Your task to perform on an android device: clear history in the chrome app Image 0: 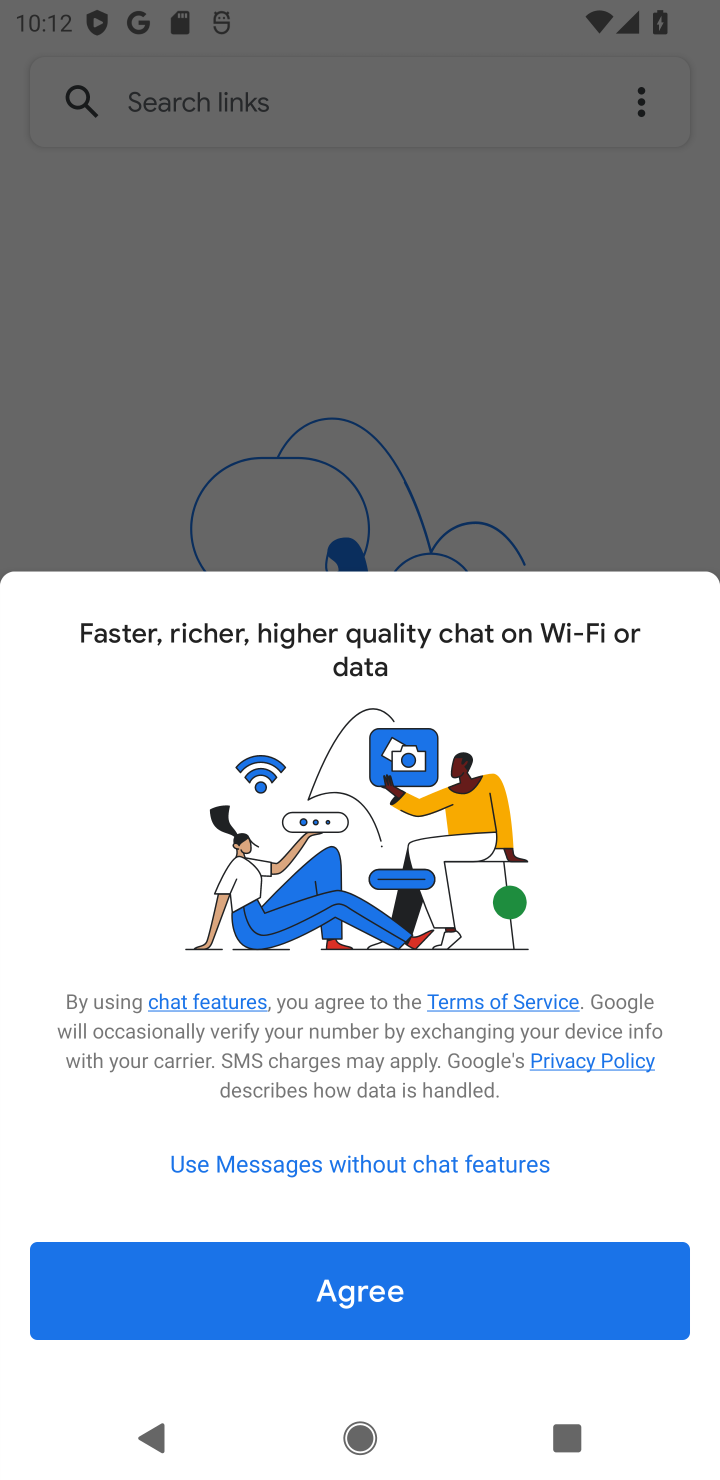
Step 0: press home button
Your task to perform on an android device: clear history in the chrome app Image 1: 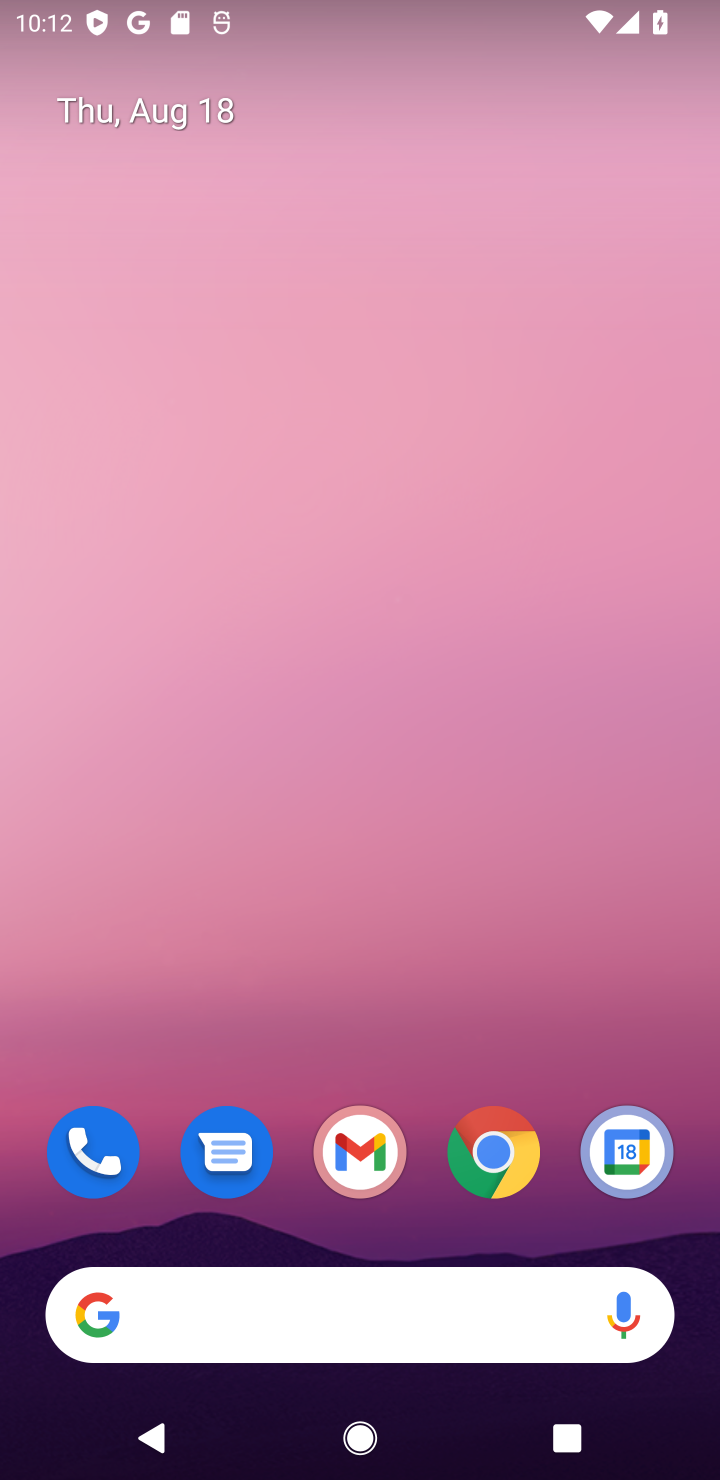
Step 1: click (497, 1145)
Your task to perform on an android device: clear history in the chrome app Image 2: 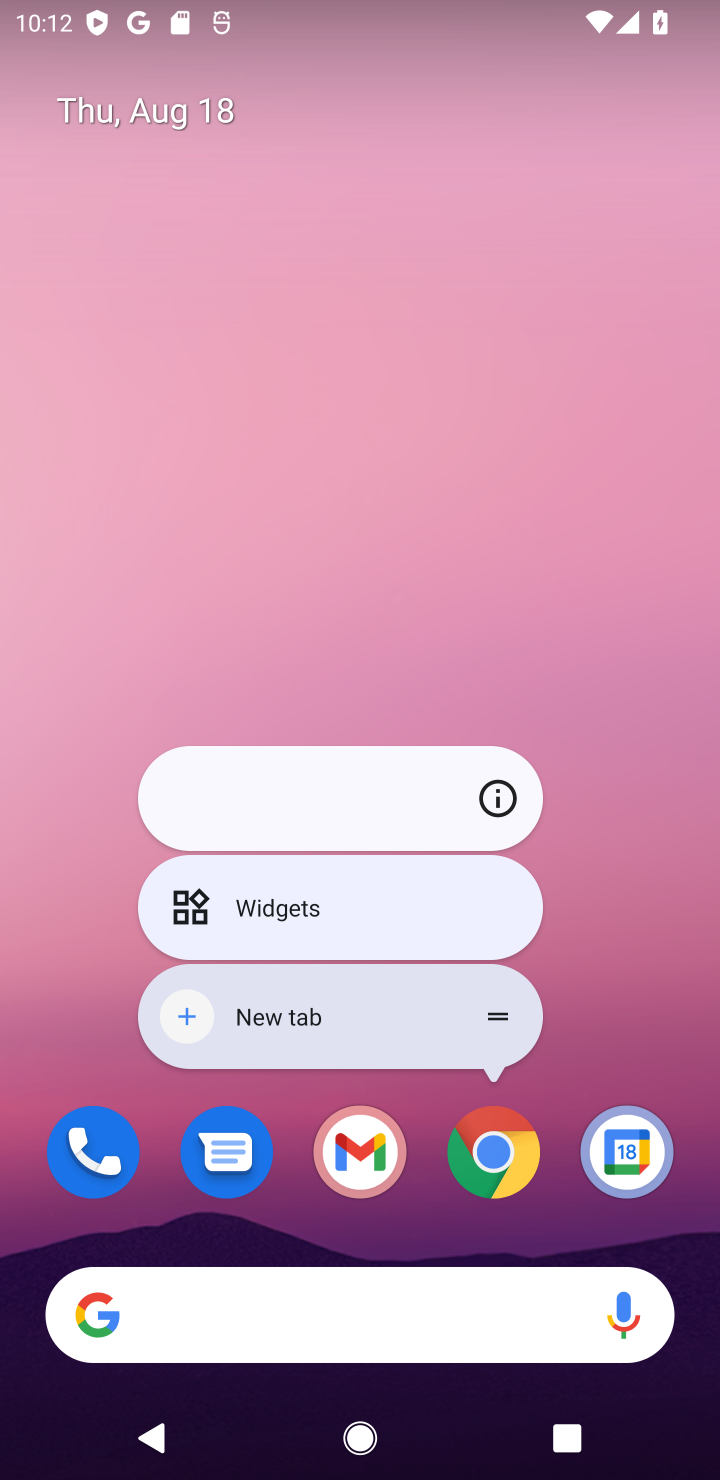
Step 2: click (497, 1145)
Your task to perform on an android device: clear history in the chrome app Image 3: 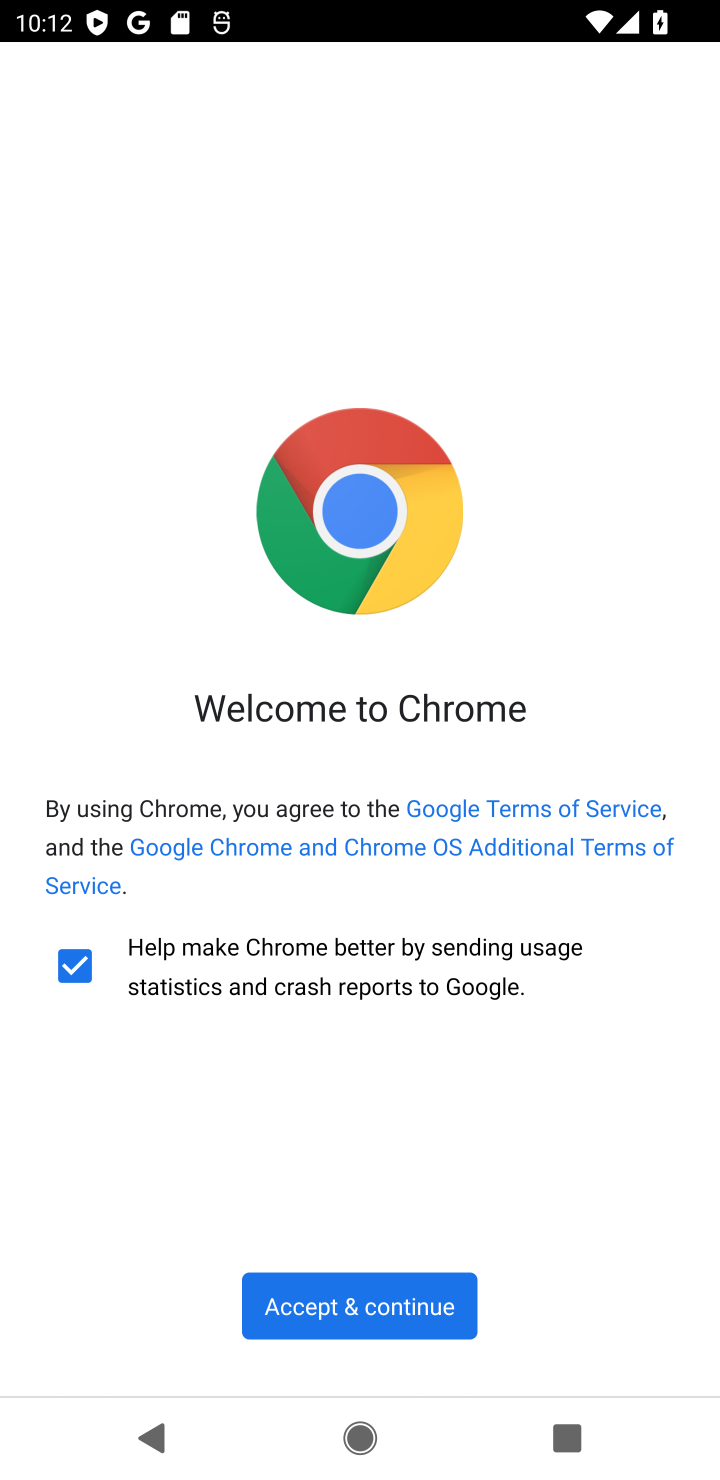
Step 3: click (432, 1299)
Your task to perform on an android device: clear history in the chrome app Image 4: 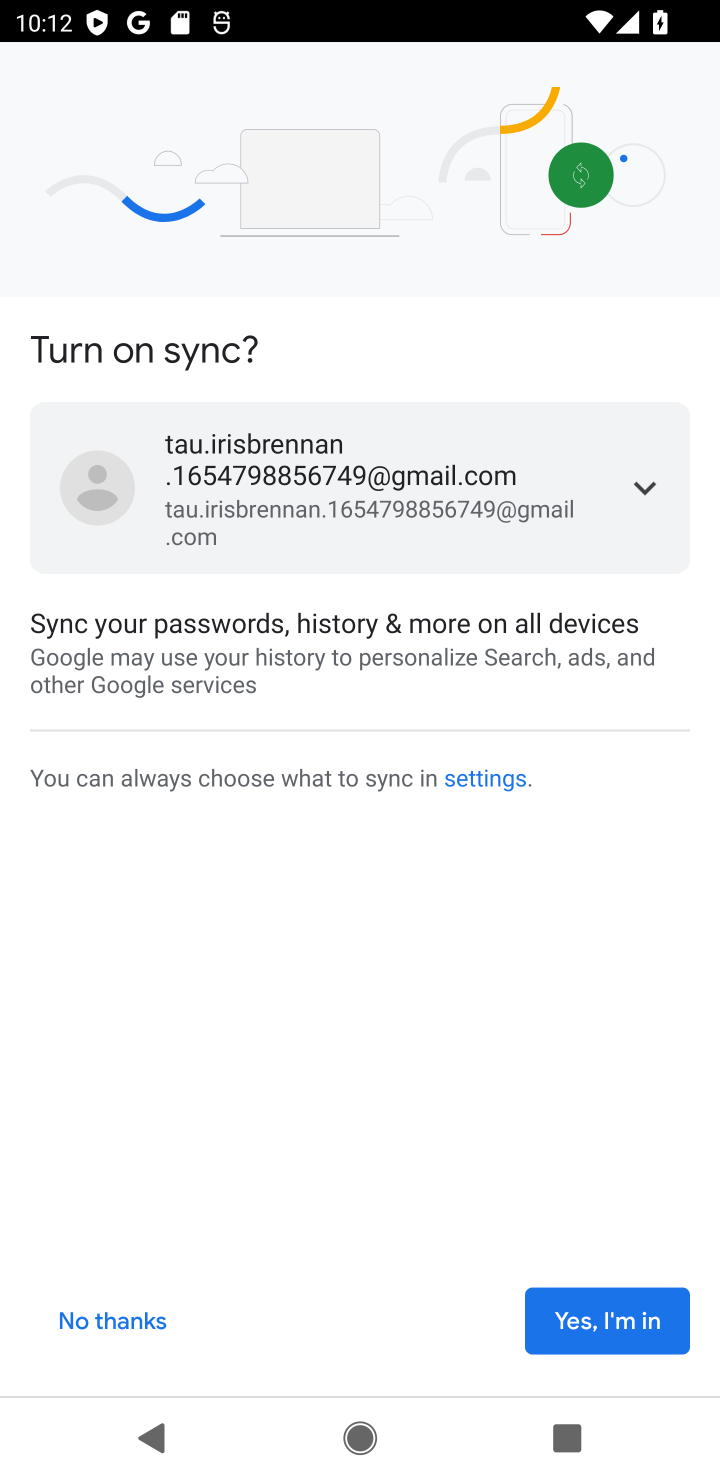
Step 4: click (586, 1314)
Your task to perform on an android device: clear history in the chrome app Image 5: 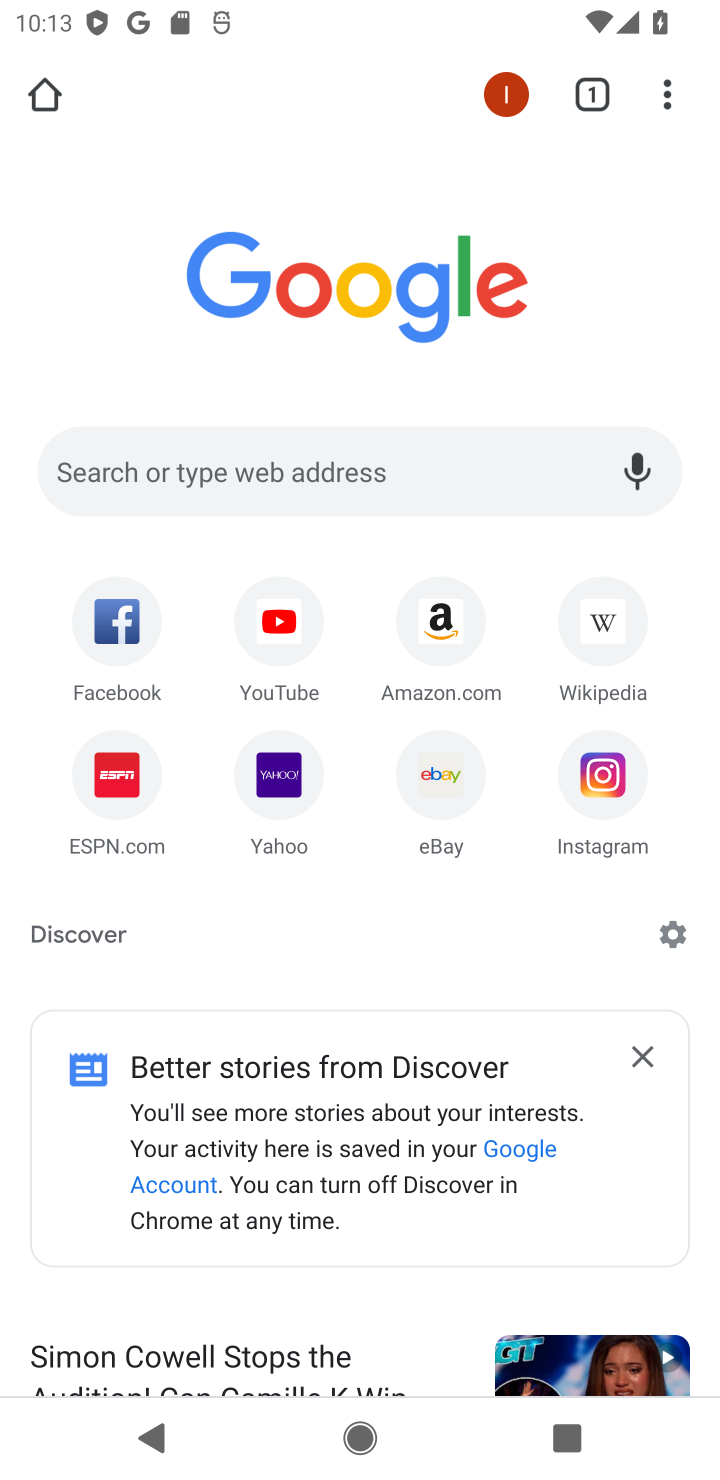
Step 5: click (671, 95)
Your task to perform on an android device: clear history in the chrome app Image 6: 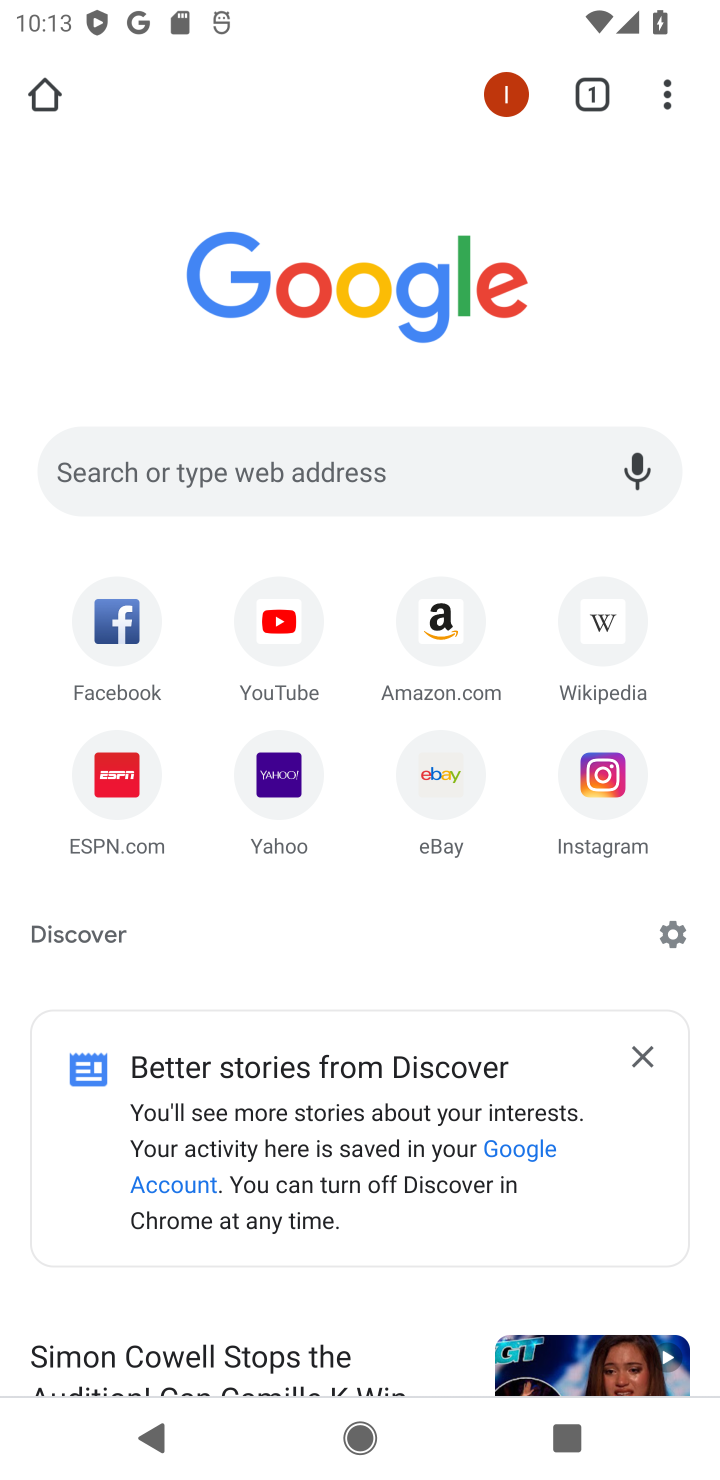
Step 6: click (671, 97)
Your task to perform on an android device: clear history in the chrome app Image 7: 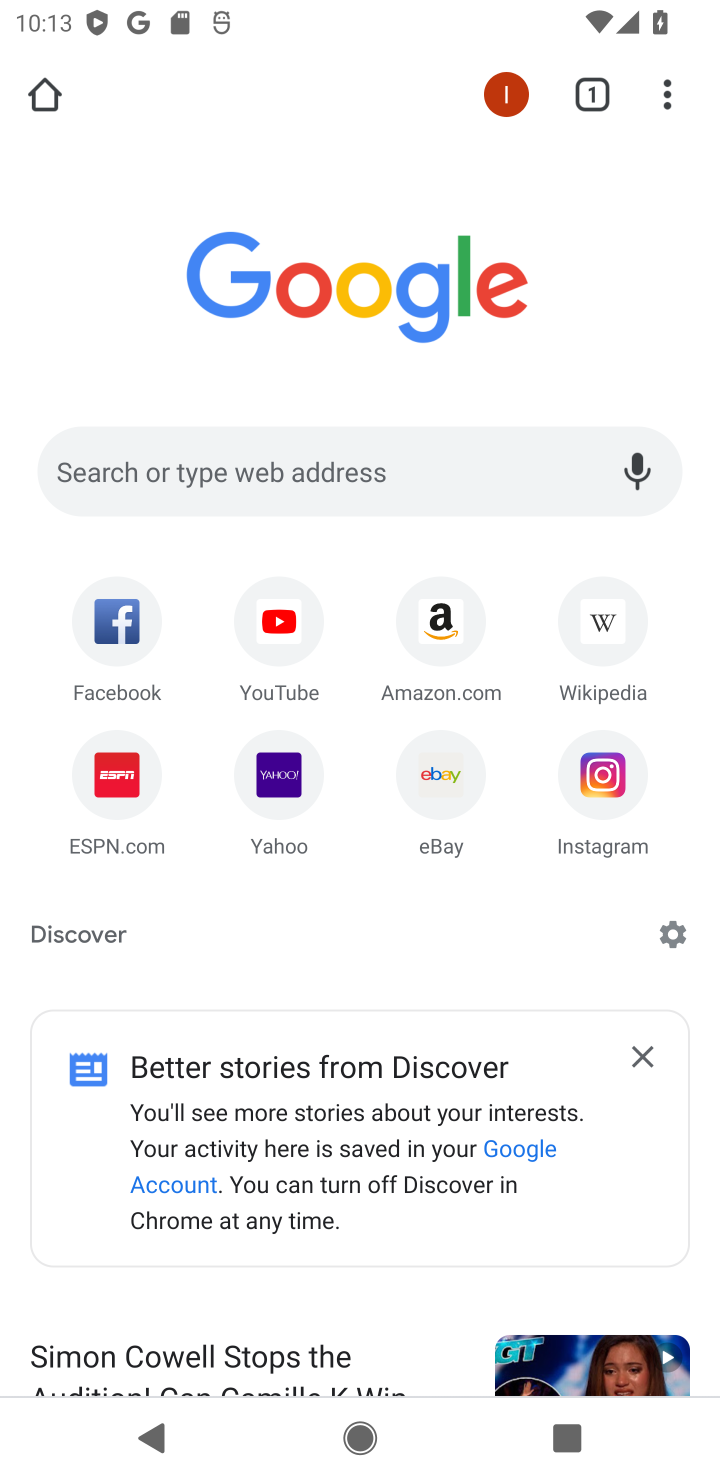
Step 7: click (668, 97)
Your task to perform on an android device: clear history in the chrome app Image 8: 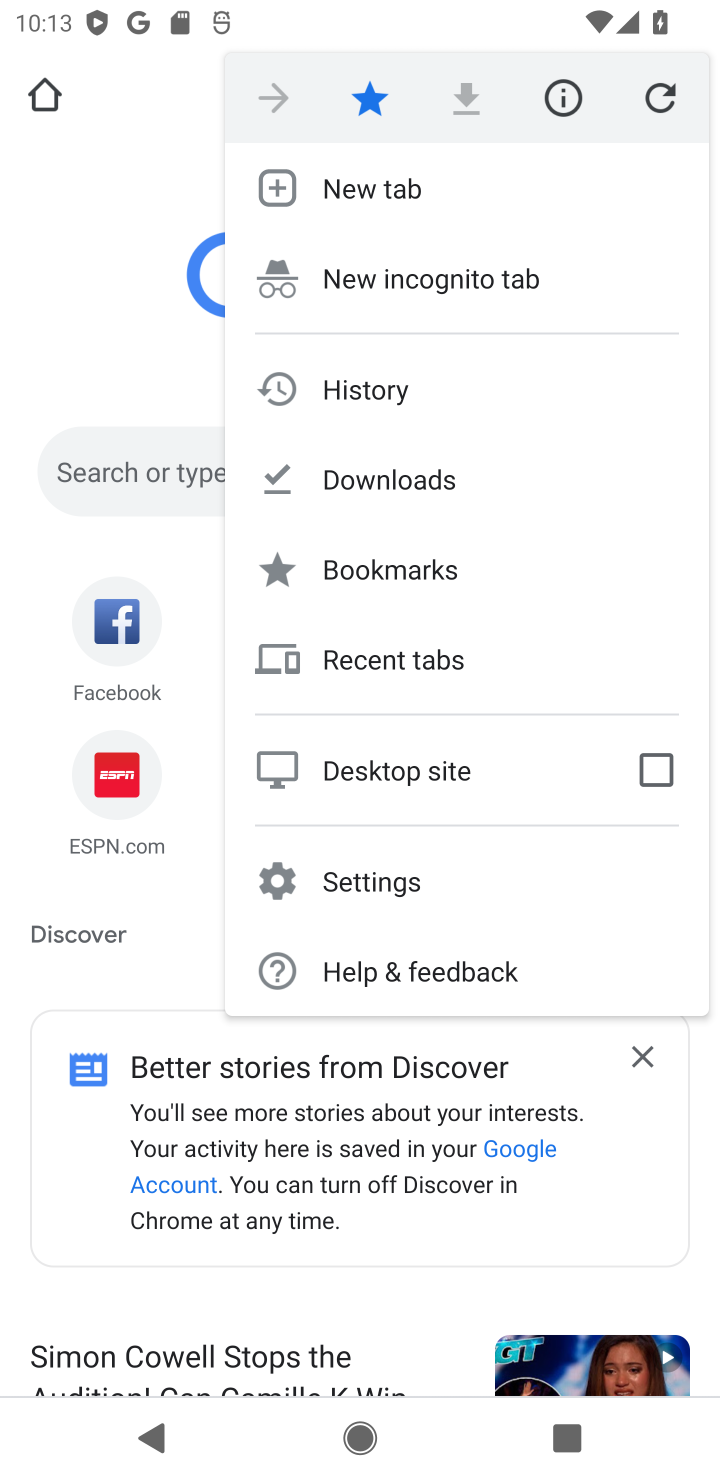
Step 8: click (377, 394)
Your task to perform on an android device: clear history in the chrome app Image 9: 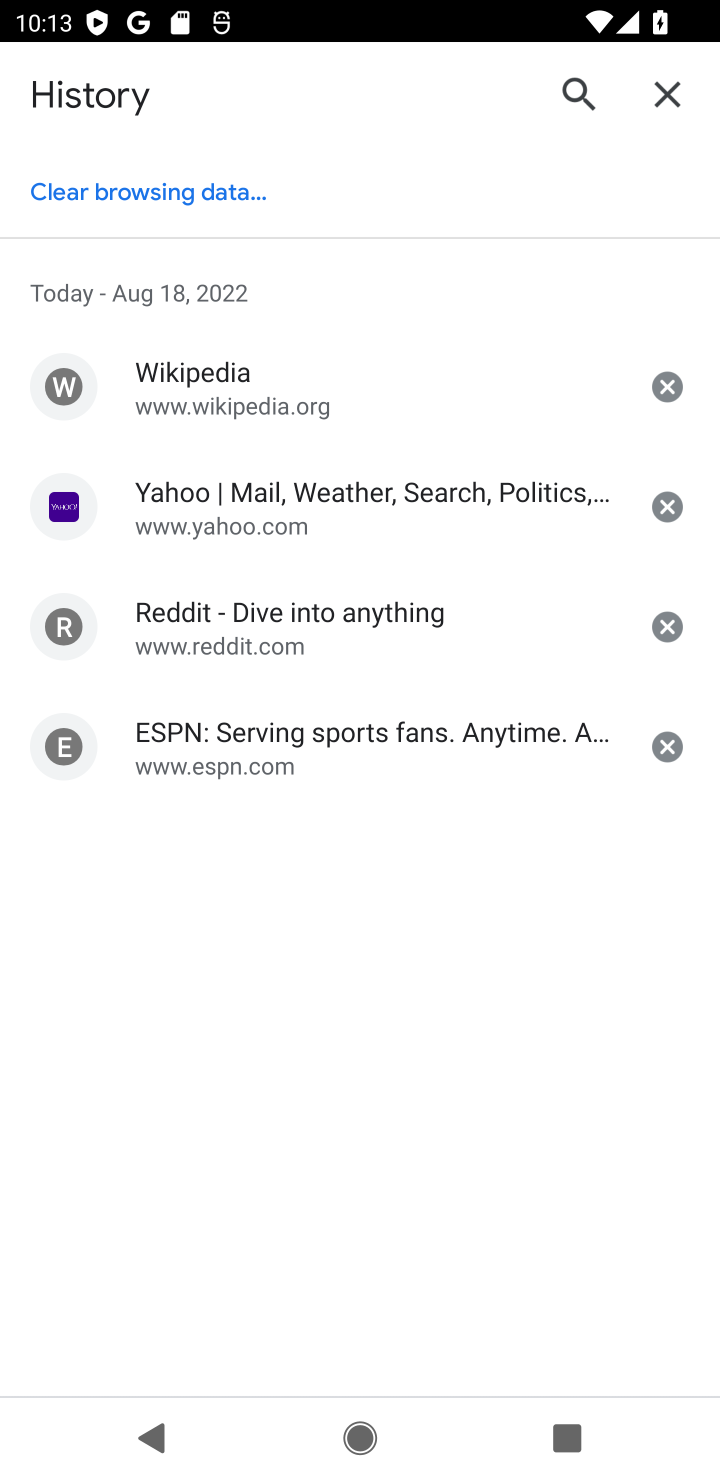
Step 9: click (207, 189)
Your task to perform on an android device: clear history in the chrome app Image 10: 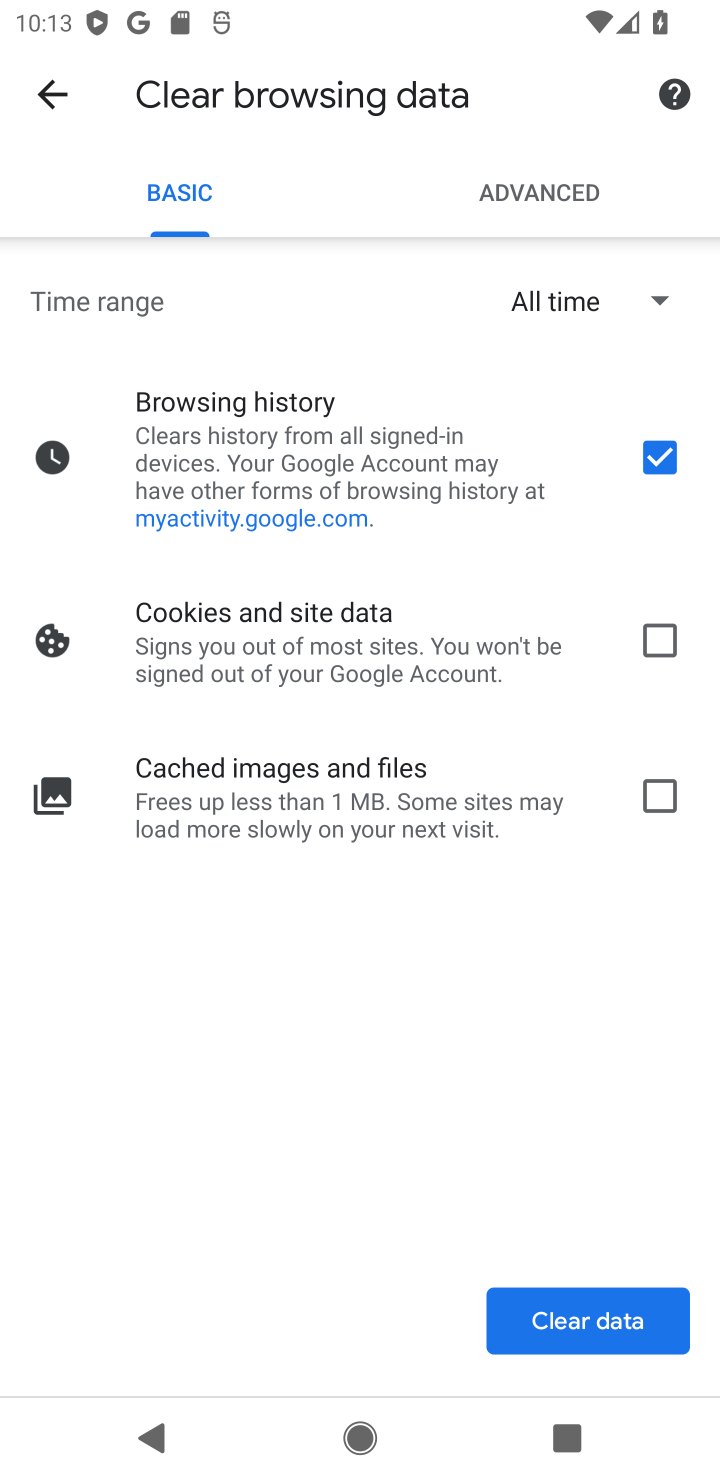
Step 10: click (629, 1322)
Your task to perform on an android device: clear history in the chrome app Image 11: 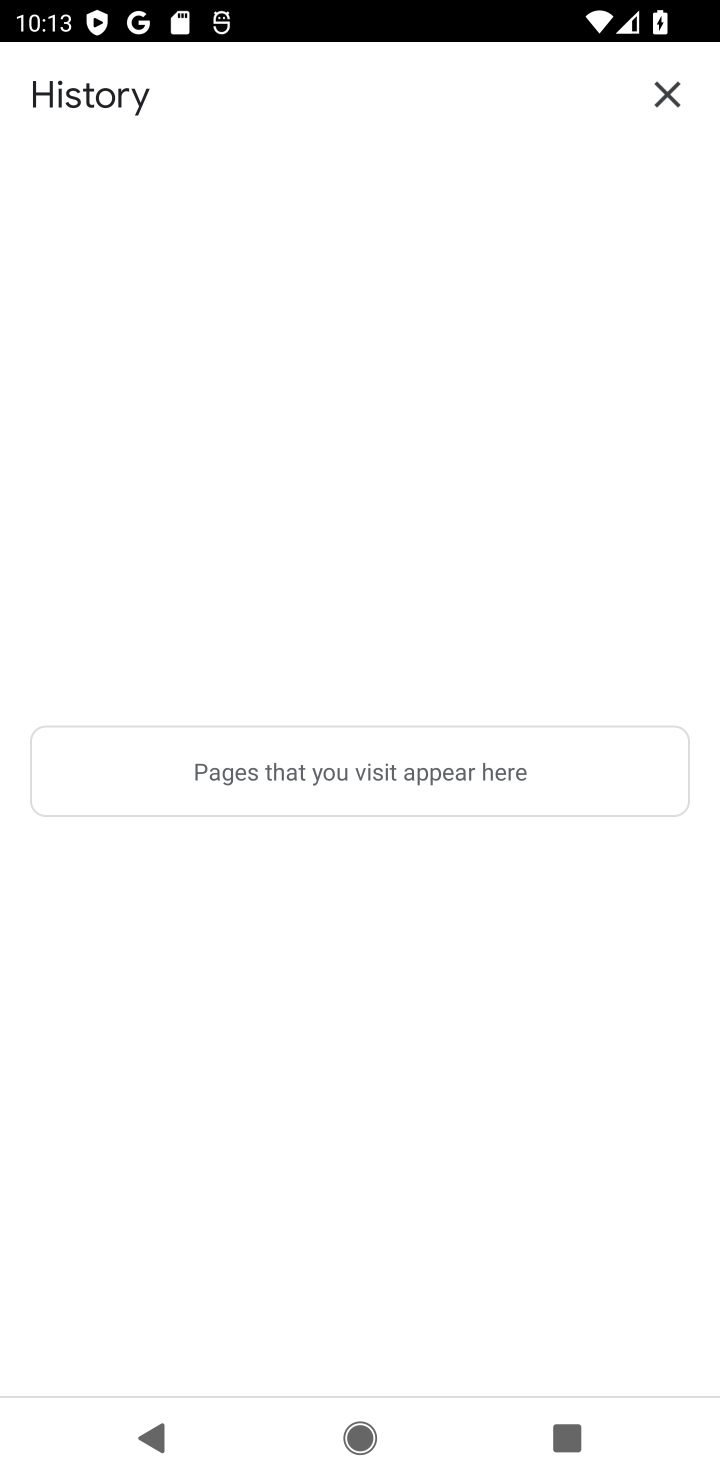
Step 11: task complete